Your task to perform on an android device: Open display settings Image 0: 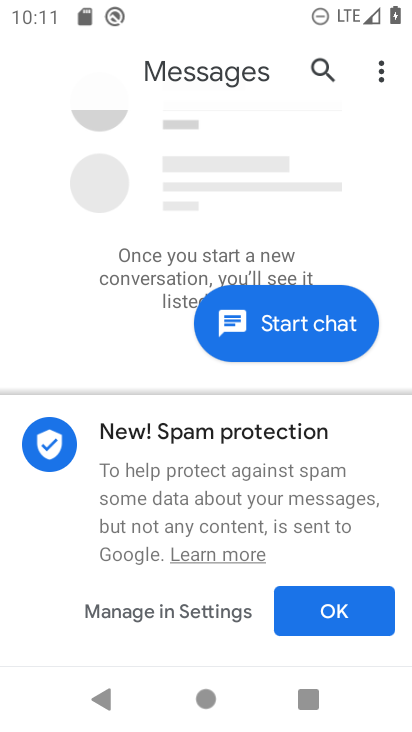
Step 0: press home button
Your task to perform on an android device: Open display settings Image 1: 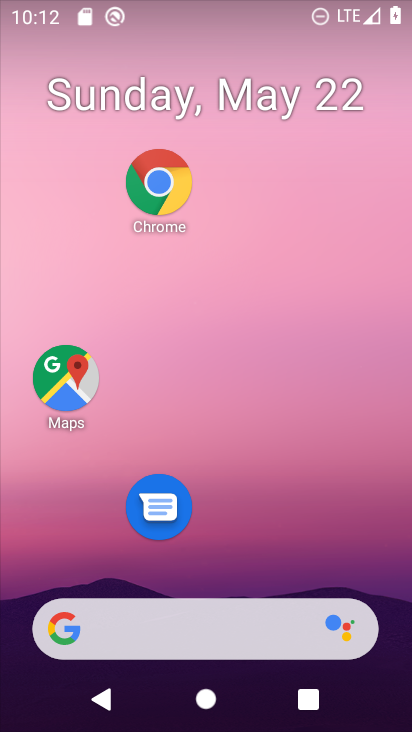
Step 1: drag from (236, 547) to (236, 56)
Your task to perform on an android device: Open display settings Image 2: 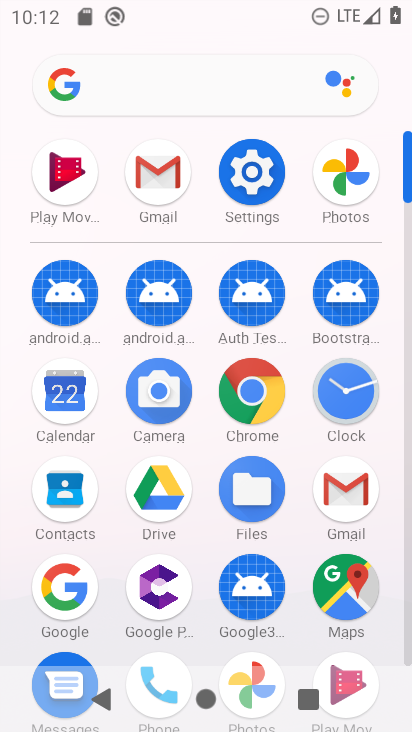
Step 2: click (265, 180)
Your task to perform on an android device: Open display settings Image 3: 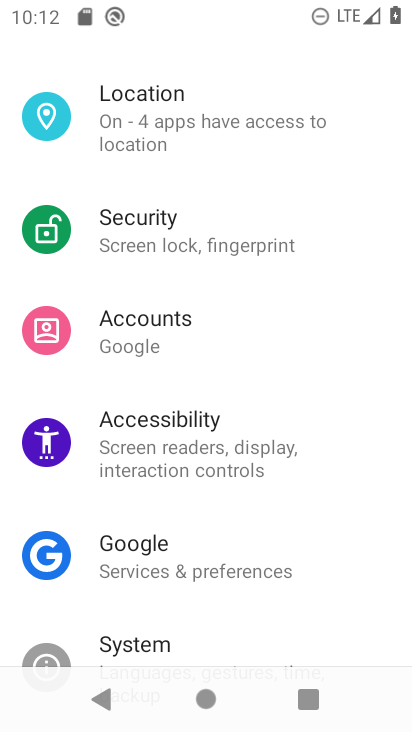
Step 3: drag from (291, 237) to (243, 687)
Your task to perform on an android device: Open display settings Image 4: 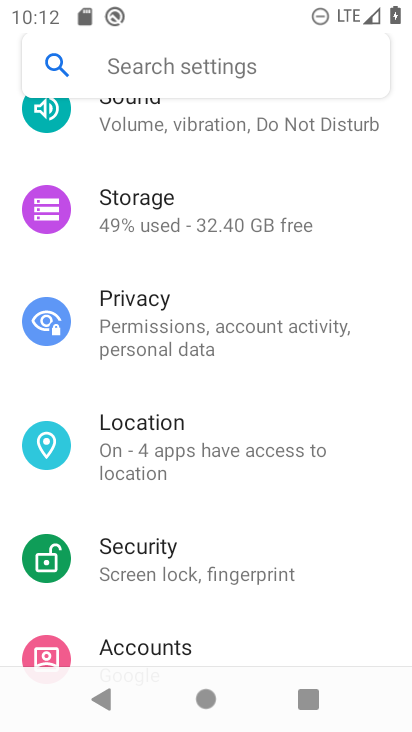
Step 4: drag from (284, 201) to (230, 641)
Your task to perform on an android device: Open display settings Image 5: 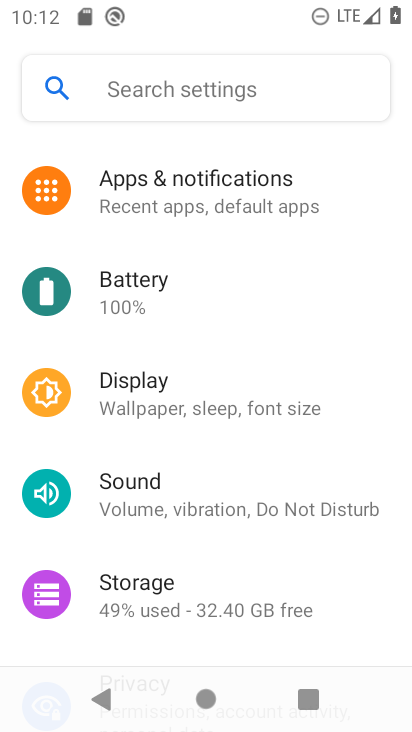
Step 5: drag from (182, 580) to (188, 44)
Your task to perform on an android device: Open display settings Image 6: 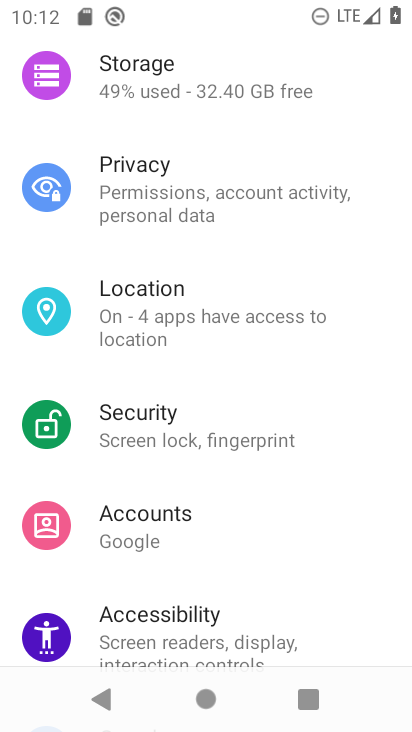
Step 6: drag from (352, 160) to (234, 687)
Your task to perform on an android device: Open display settings Image 7: 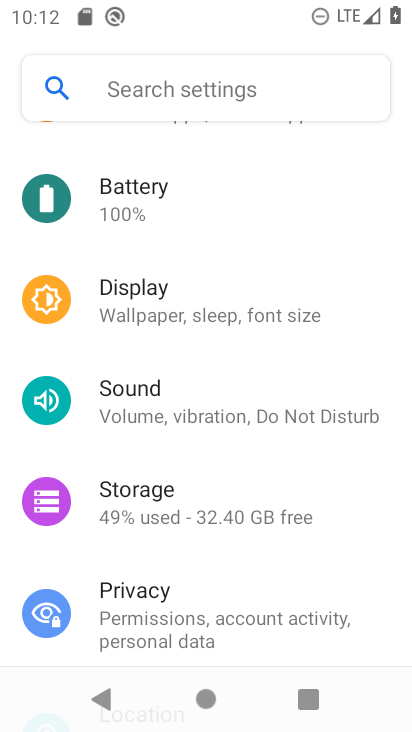
Step 7: click (190, 321)
Your task to perform on an android device: Open display settings Image 8: 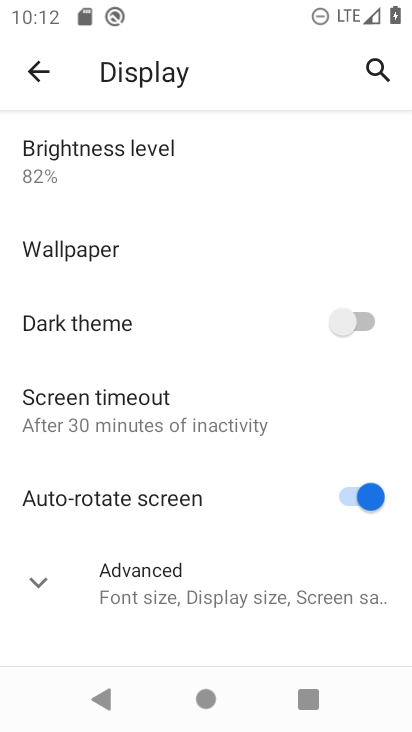
Step 8: task complete